Your task to perform on an android device: toggle show notifications on the lock screen Image 0: 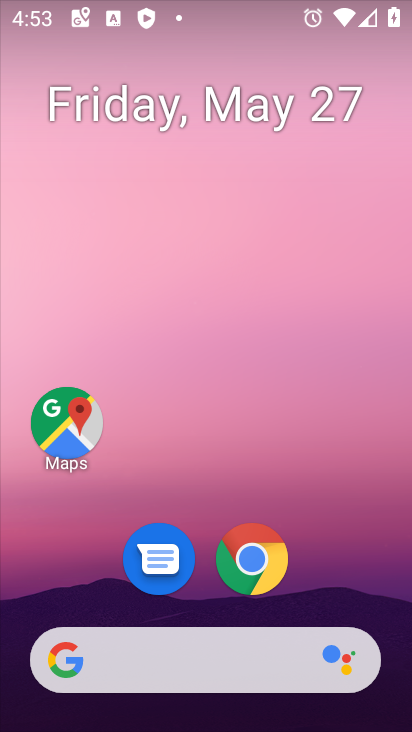
Step 0: drag from (269, 630) to (353, 0)
Your task to perform on an android device: toggle show notifications on the lock screen Image 1: 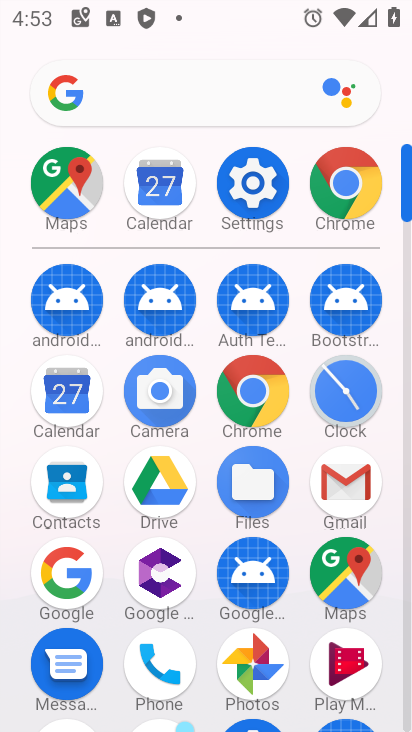
Step 1: click (260, 187)
Your task to perform on an android device: toggle show notifications on the lock screen Image 2: 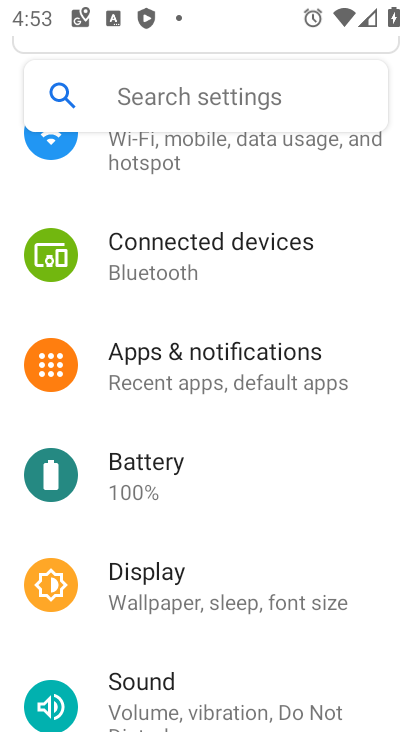
Step 2: click (242, 373)
Your task to perform on an android device: toggle show notifications on the lock screen Image 3: 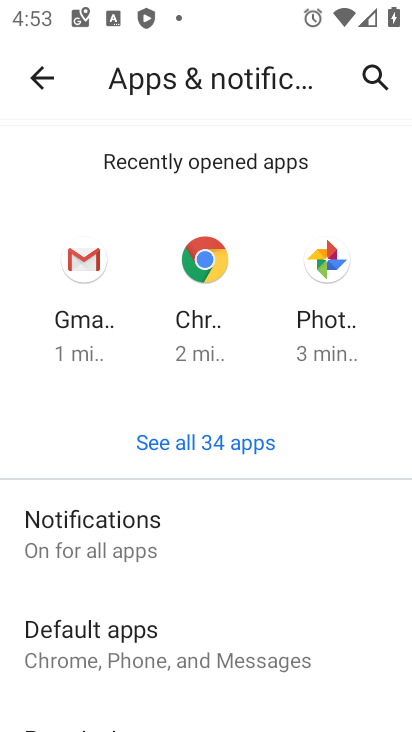
Step 3: drag from (224, 686) to (280, 89)
Your task to perform on an android device: toggle show notifications on the lock screen Image 4: 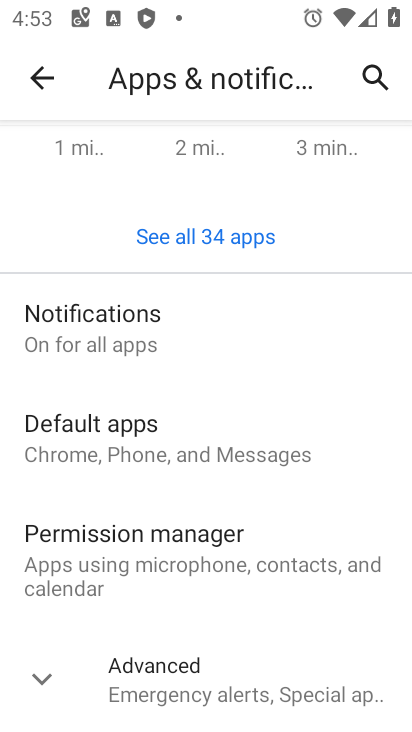
Step 4: click (152, 339)
Your task to perform on an android device: toggle show notifications on the lock screen Image 5: 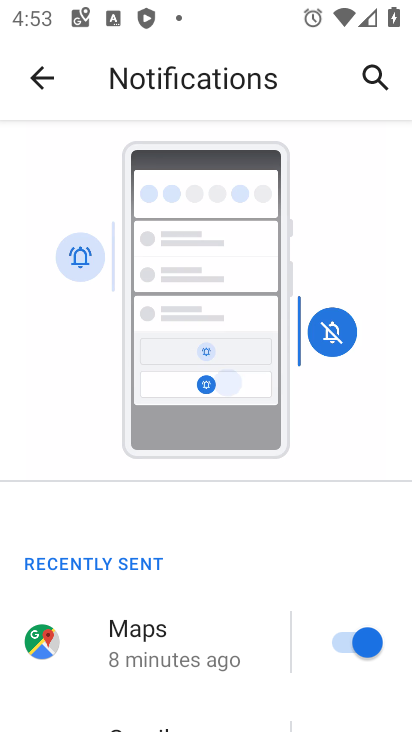
Step 5: drag from (175, 672) to (234, 81)
Your task to perform on an android device: toggle show notifications on the lock screen Image 6: 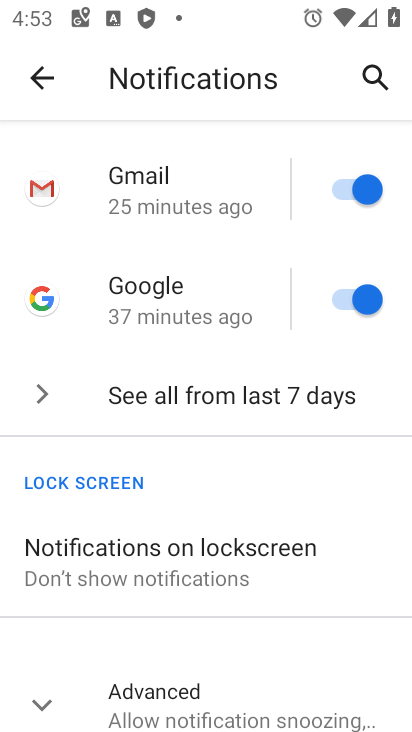
Step 6: click (224, 557)
Your task to perform on an android device: toggle show notifications on the lock screen Image 7: 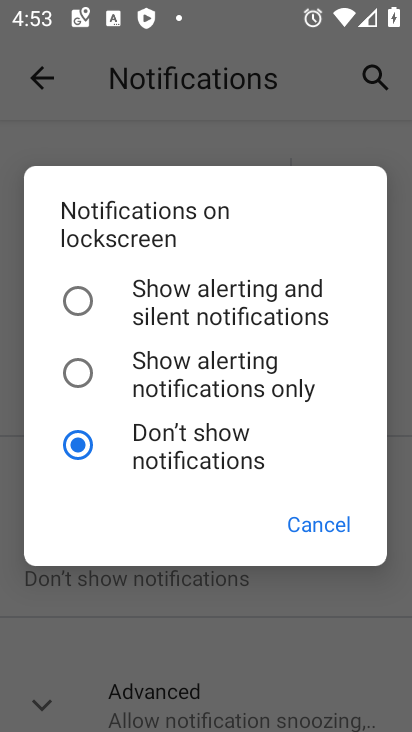
Step 7: click (83, 311)
Your task to perform on an android device: toggle show notifications on the lock screen Image 8: 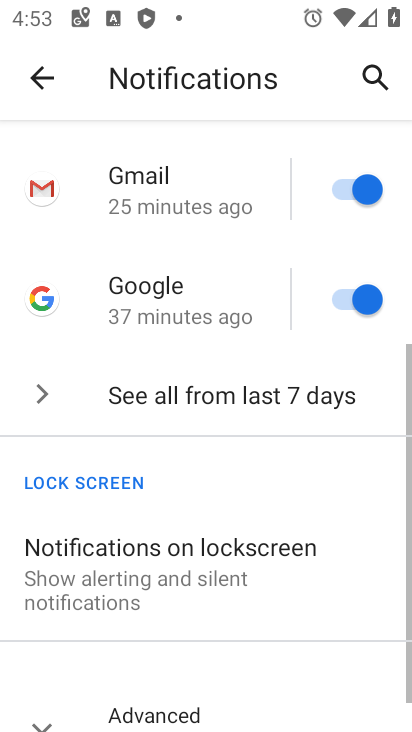
Step 8: task complete